Your task to perform on an android device: turn on airplane mode Image 0: 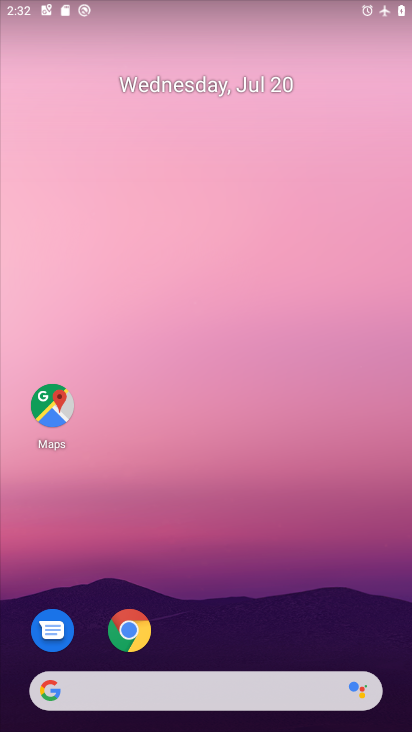
Step 0: drag from (209, 682) to (257, 179)
Your task to perform on an android device: turn on airplane mode Image 1: 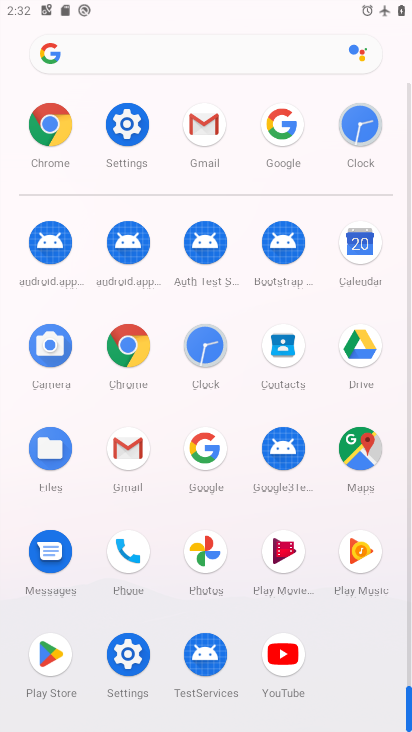
Step 1: click (129, 137)
Your task to perform on an android device: turn on airplane mode Image 2: 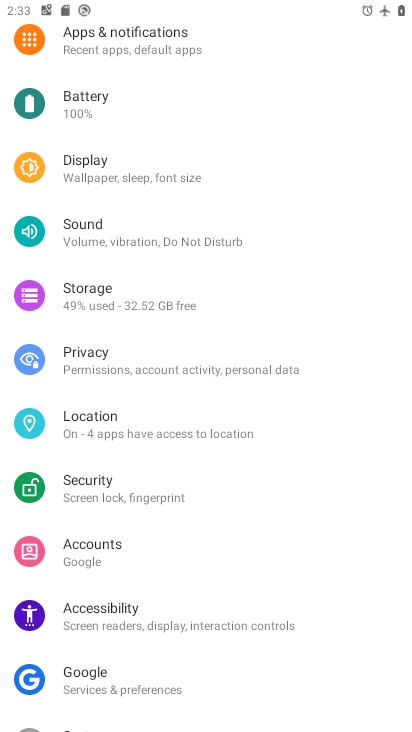
Step 2: drag from (162, 222) to (104, 661)
Your task to perform on an android device: turn on airplane mode Image 3: 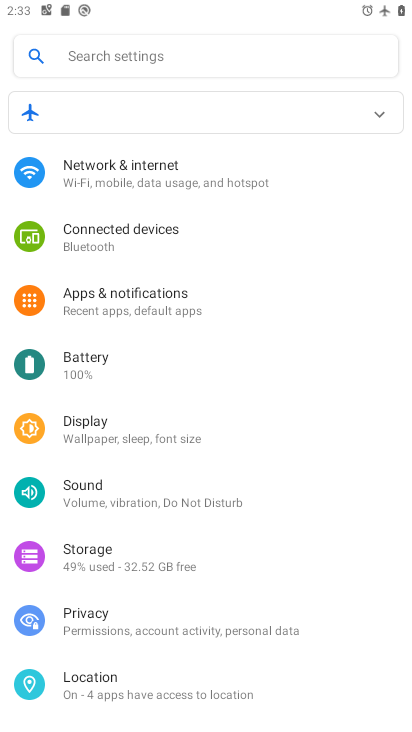
Step 3: click (150, 160)
Your task to perform on an android device: turn on airplane mode Image 4: 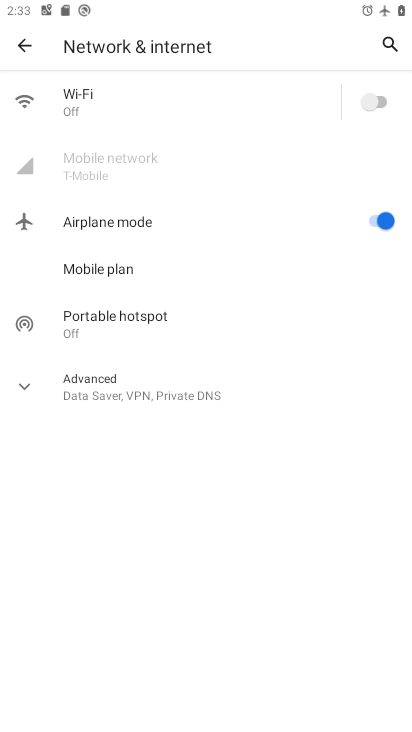
Step 4: task complete